Your task to perform on an android device: change the clock display to analog Image 0: 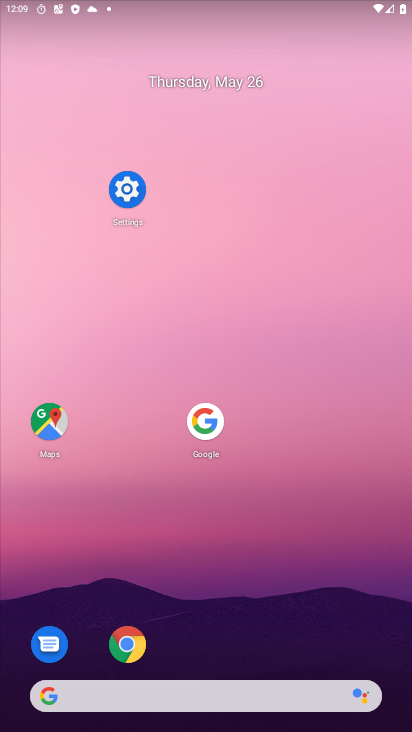
Step 0: drag from (198, 621) to (206, 148)
Your task to perform on an android device: change the clock display to analog Image 1: 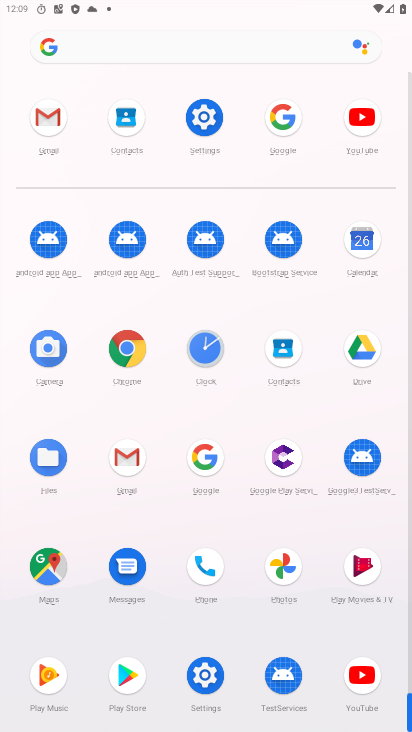
Step 1: click (210, 346)
Your task to perform on an android device: change the clock display to analog Image 2: 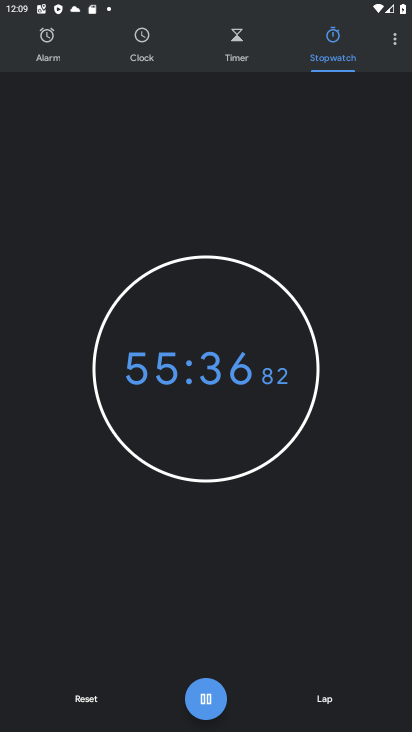
Step 2: click (389, 38)
Your task to perform on an android device: change the clock display to analog Image 3: 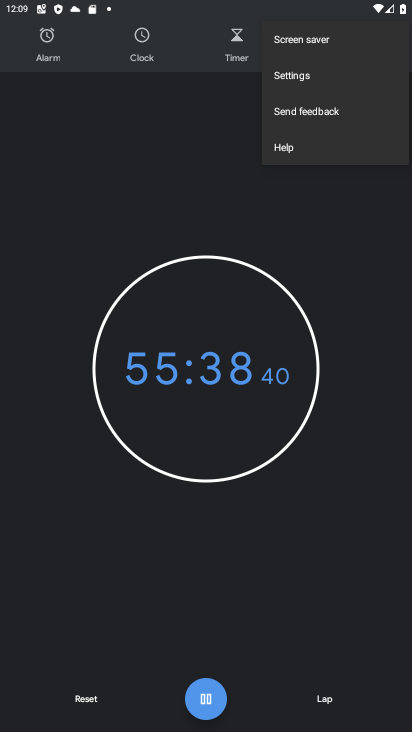
Step 3: click (301, 79)
Your task to perform on an android device: change the clock display to analog Image 4: 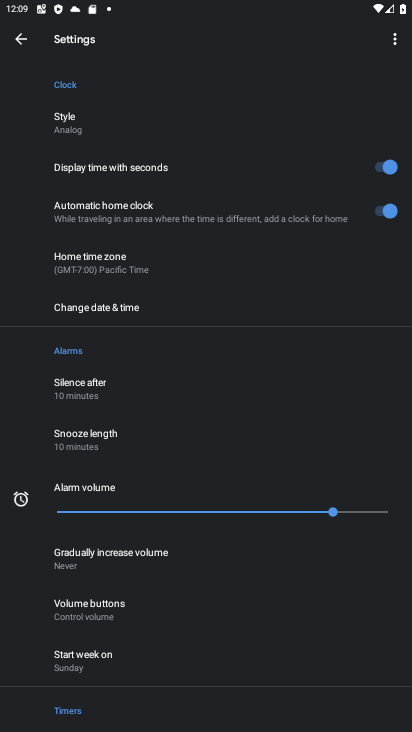
Step 4: click (77, 118)
Your task to perform on an android device: change the clock display to analog Image 5: 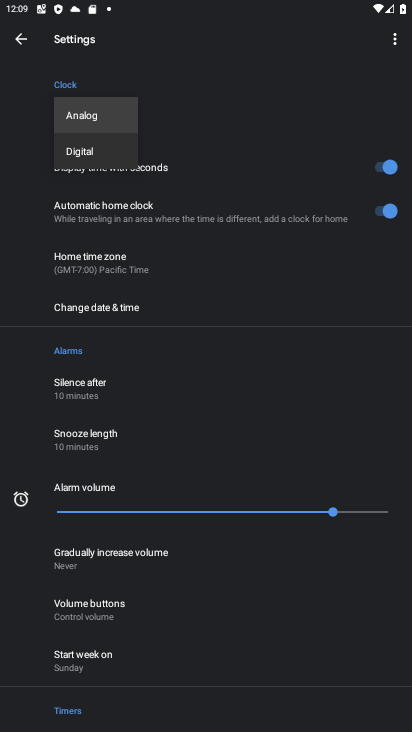
Step 5: click (77, 115)
Your task to perform on an android device: change the clock display to analog Image 6: 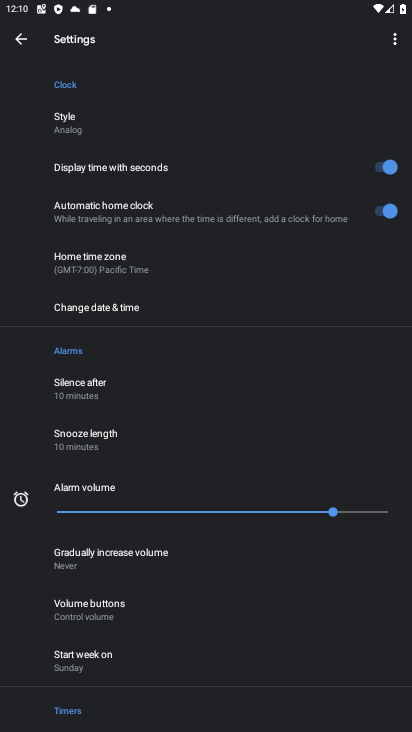
Step 6: task complete